Your task to perform on an android device: Open notification settings Image 0: 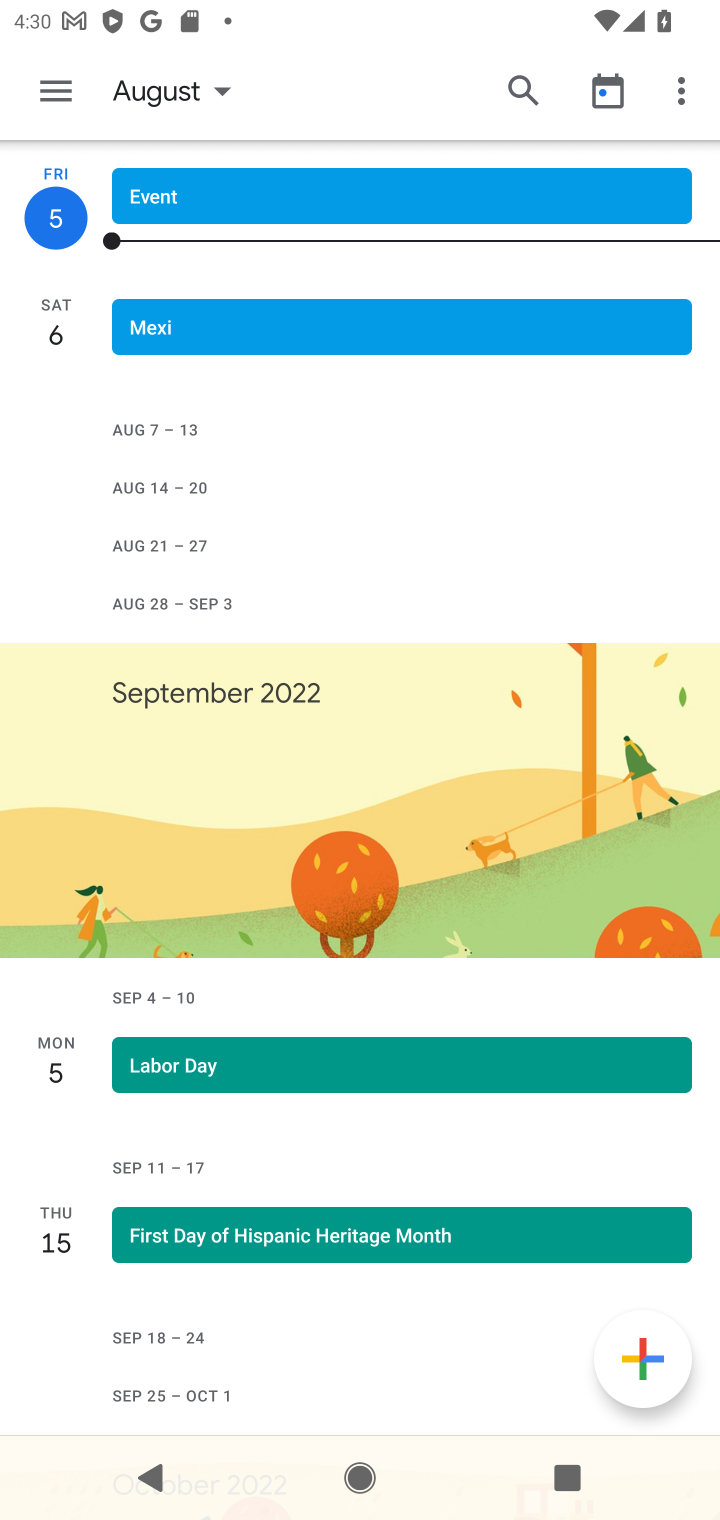
Step 0: press home button
Your task to perform on an android device: Open notification settings Image 1: 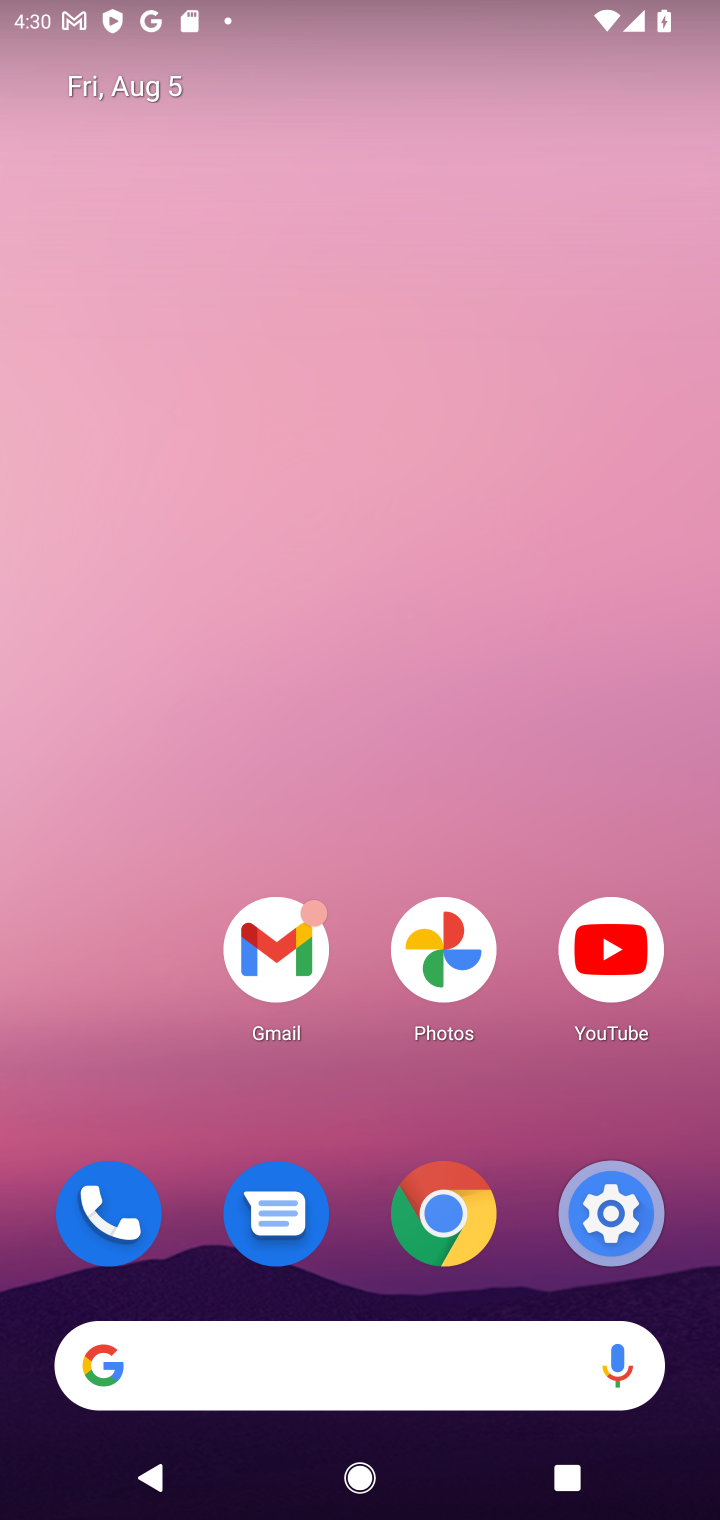
Step 1: click (607, 1266)
Your task to perform on an android device: Open notification settings Image 2: 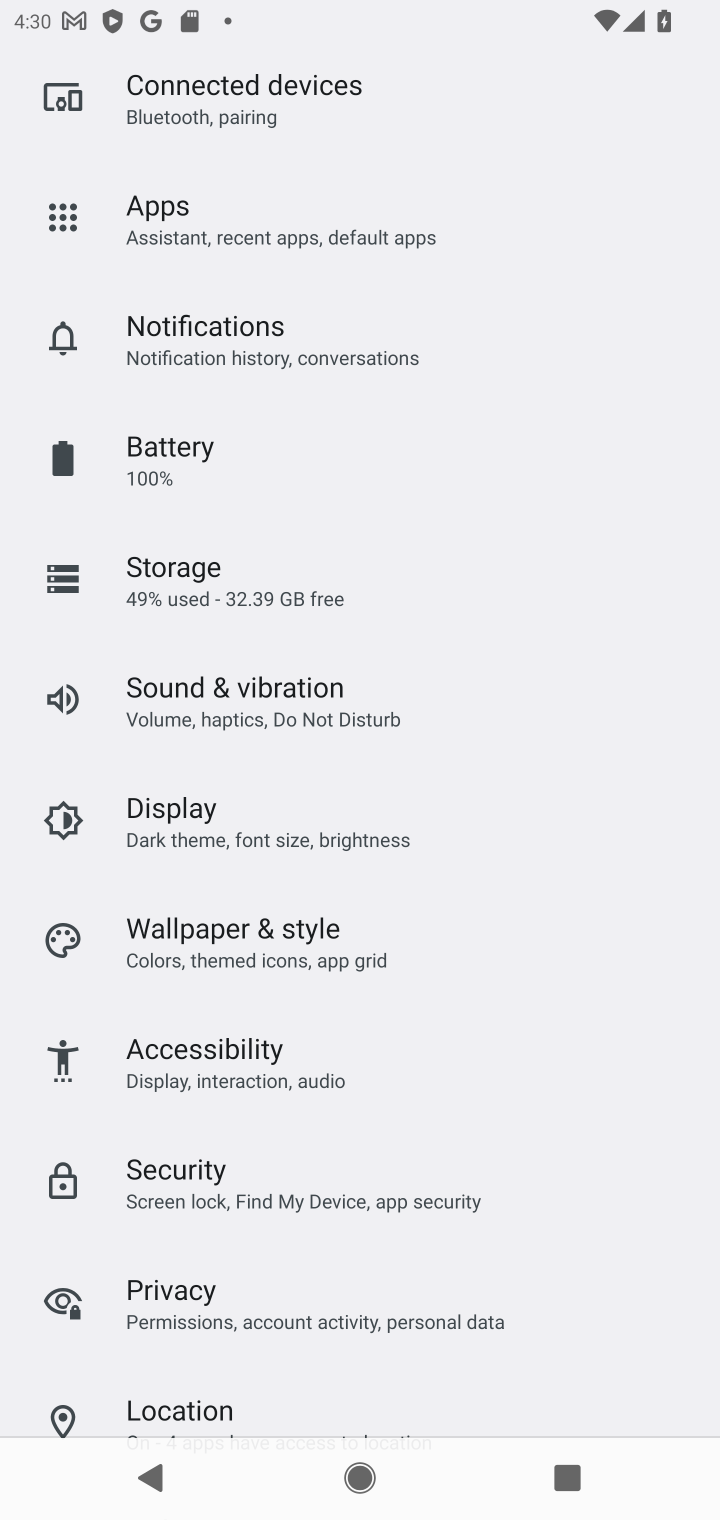
Step 2: click (274, 360)
Your task to perform on an android device: Open notification settings Image 3: 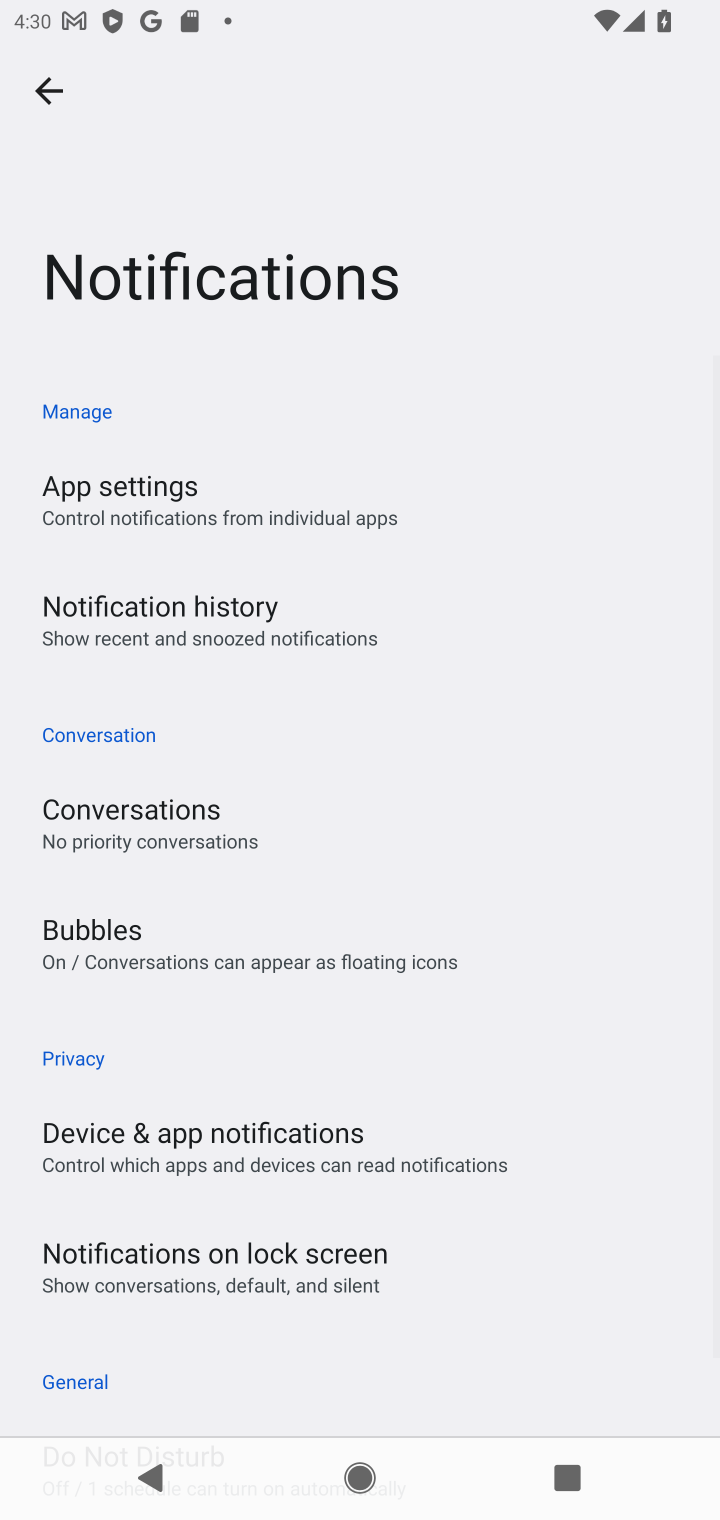
Step 3: task complete